Your task to perform on an android device: Open Google Maps Image 0: 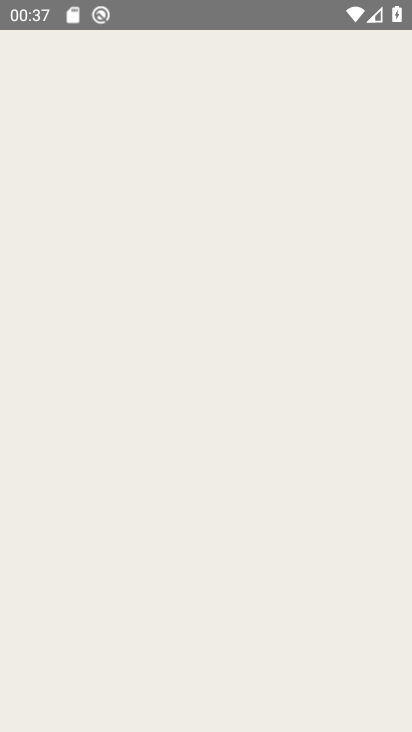
Step 0: press home button
Your task to perform on an android device: Open Google Maps Image 1: 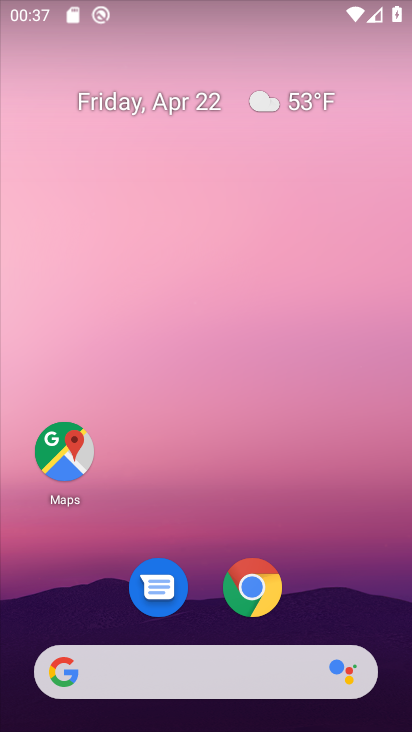
Step 1: drag from (319, 479) to (318, 165)
Your task to perform on an android device: Open Google Maps Image 2: 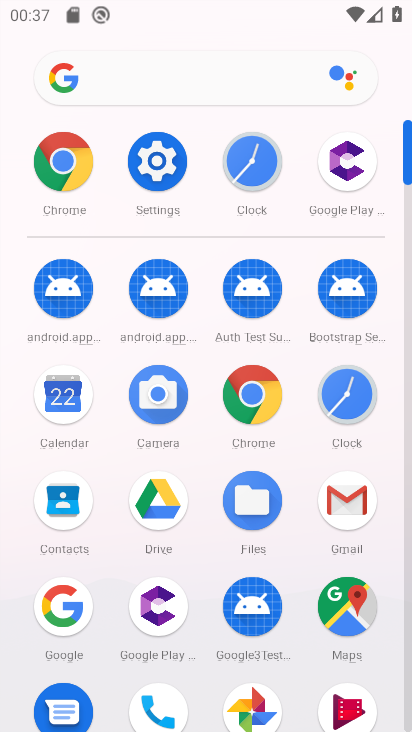
Step 2: click (345, 617)
Your task to perform on an android device: Open Google Maps Image 3: 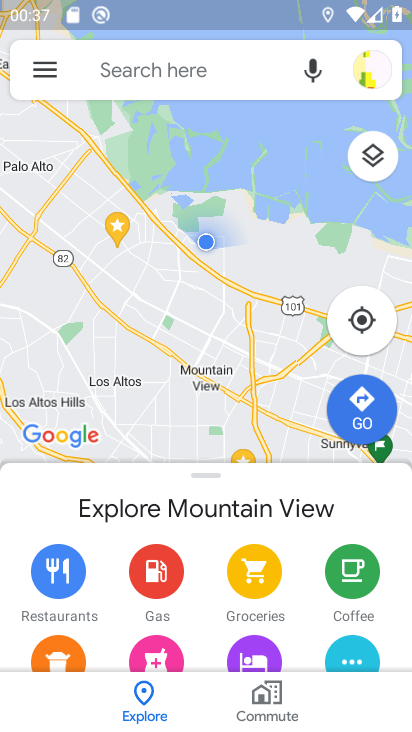
Step 3: task complete